Your task to perform on an android device: Open Maps and search for coffee Image 0: 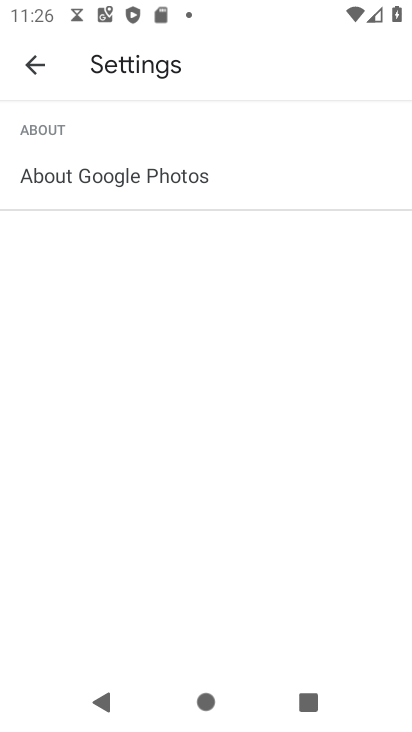
Step 0: press home button
Your task to perform on an android device: Open Maps and search for coffee Image 1: 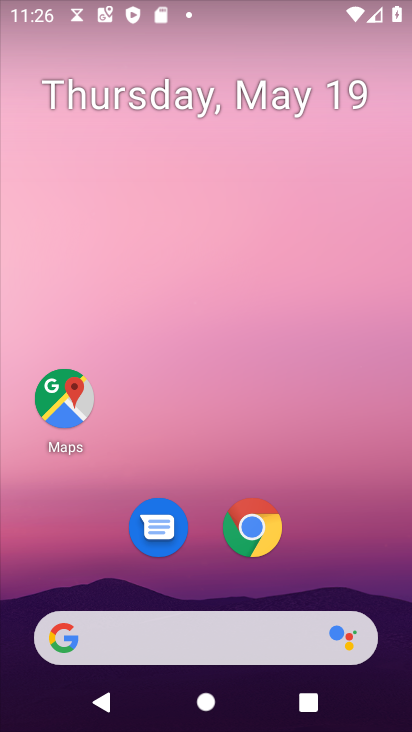
Step 1: click (69, 406)
Your task to perform on an android device: Open Maps and search for coffee Image 2: 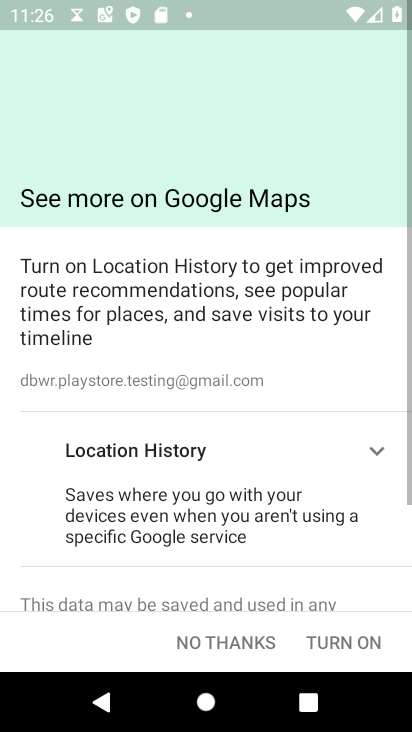
Step 2: click (316, 68)
Your task to perform on an android device: Open Maps and search for coffee Image 3: 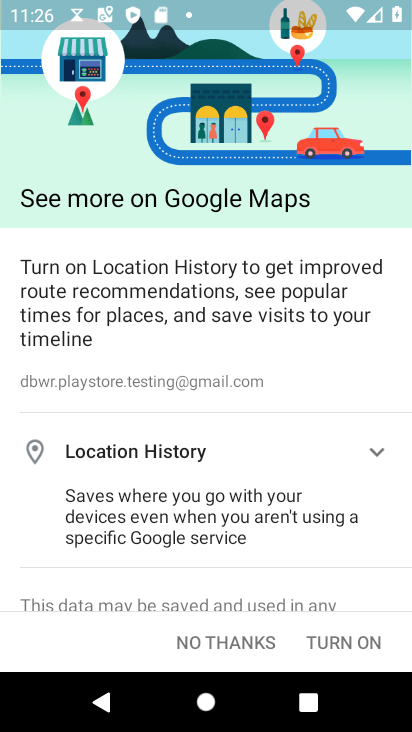
Step 3: click (224, 651)
Your task to perform on an android device: Open Maps and search for coffee Image 4: 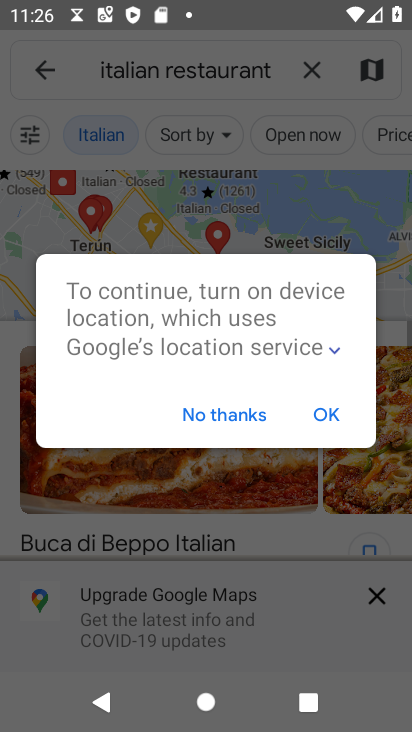
Step 4: click (219, 408)
Your task to perform on an android device: Open Maps and search for coffee Image 5: 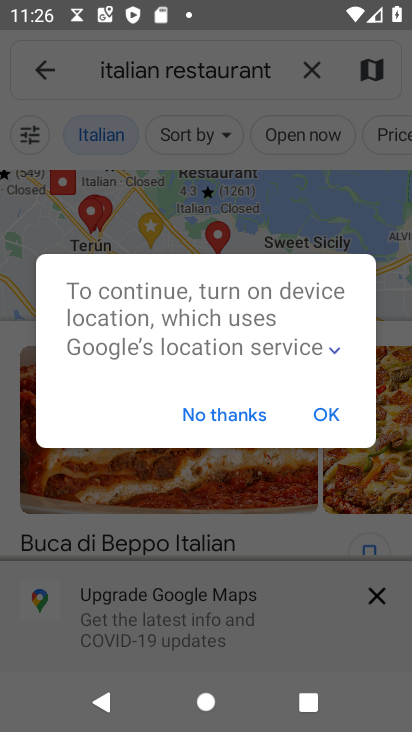
Step 5: click (327, 416)
Your task to perform on an android device: Open Maps and search for coffee Image 6: 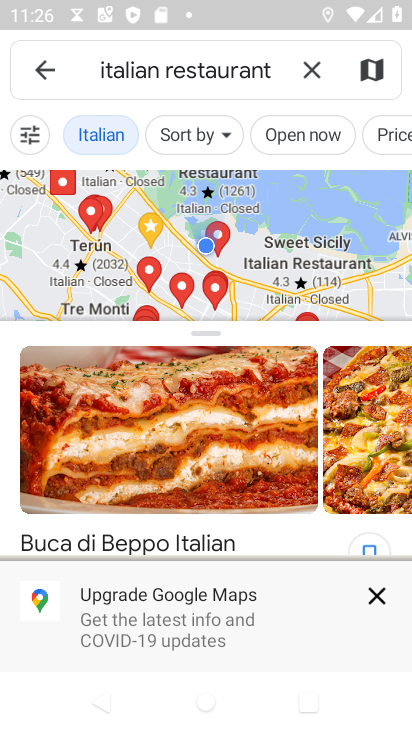
Step 6: click (311, 60)
Your task to perform on an android device: Open Maps and search for coffee Image 7: 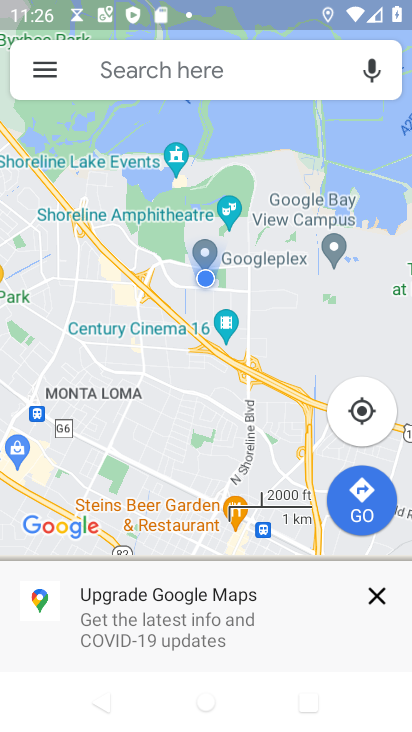
Step 7: click (227, 63)
Your task to perform on an android device: Open Maps and search for coffee Image 8: 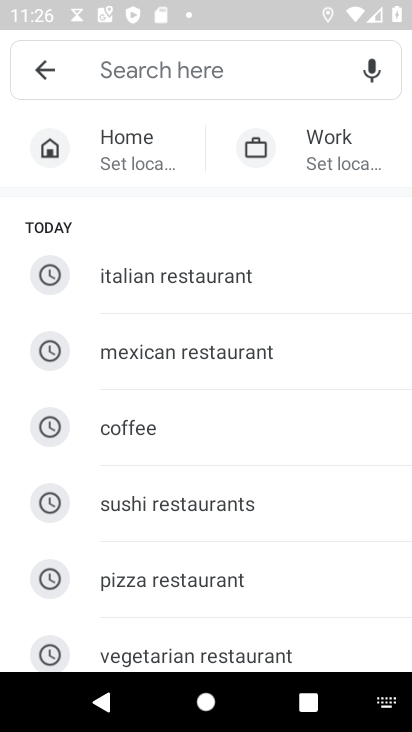
Step 8: type "coffee"
Your task to perform on an android device: Open Maps and search for coffee Image 9: 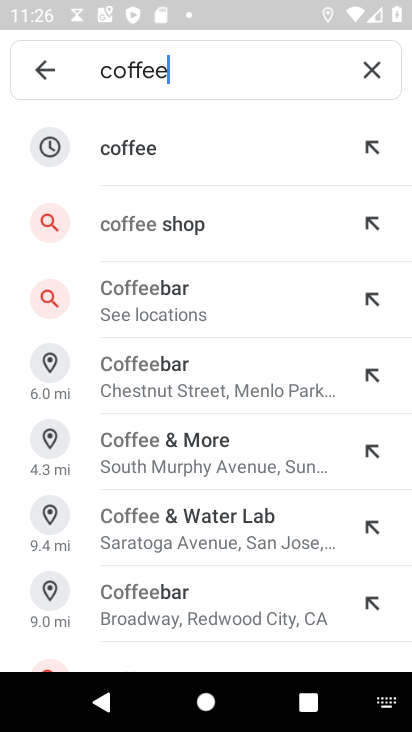
Step 9: click (179, 171)
Your task to perform on an android device: Open Maps and search for coffee Image 10: 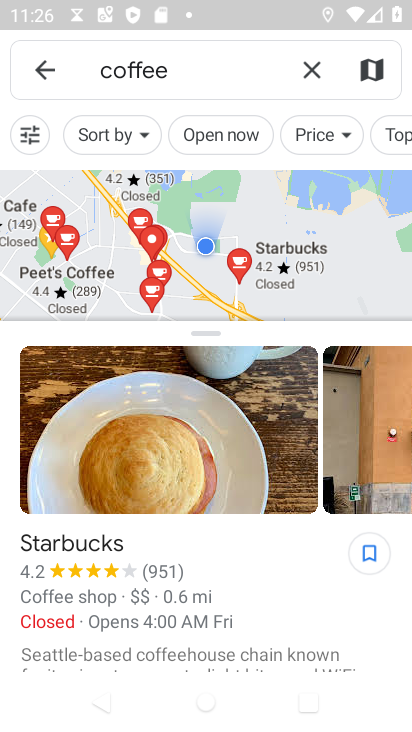
Step 10: task complete